Your task to perform on an android device: Open eBay Image 0: 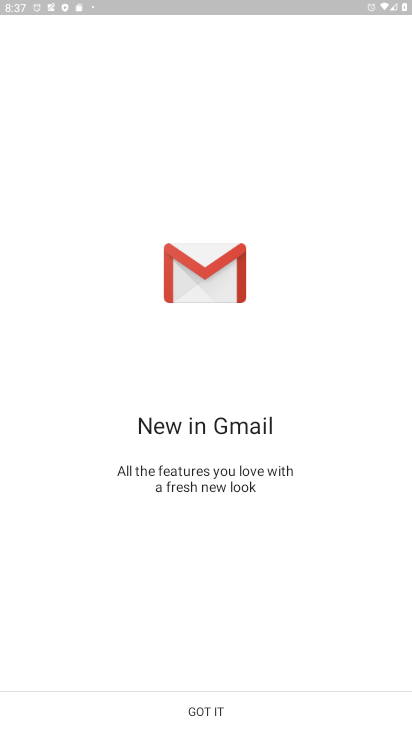
Step 0: press home button
Your task to perform on an android device: Open eBay Image 1: 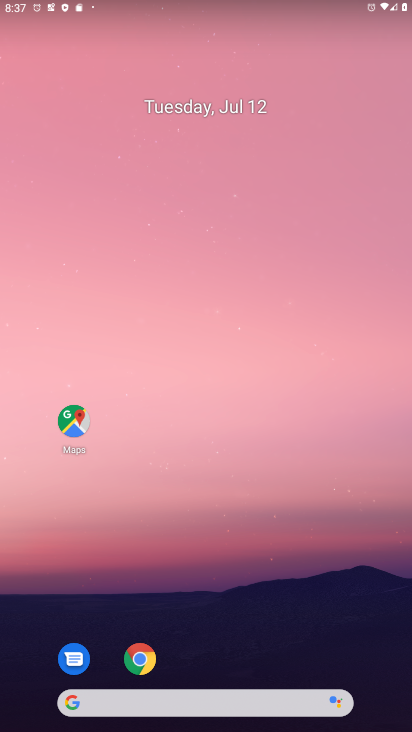
Step 1: click (140, 658)
Your task to perform on an android device: Open eBay Image 2: 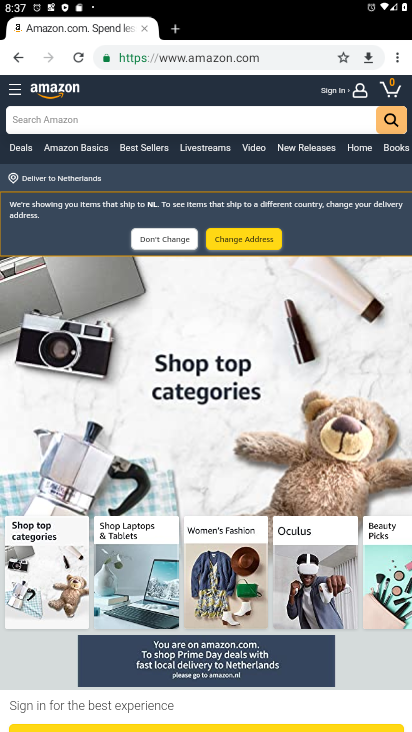
Step 2: click (283, 54)
Your task to perform on an android device: Open eBay Image 3: 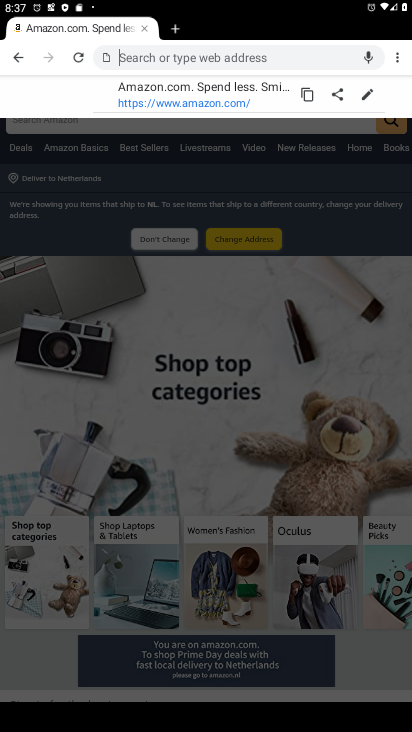
Step 3: type "eBay"
Your task to perform on an android device: Open eBay Image 4: 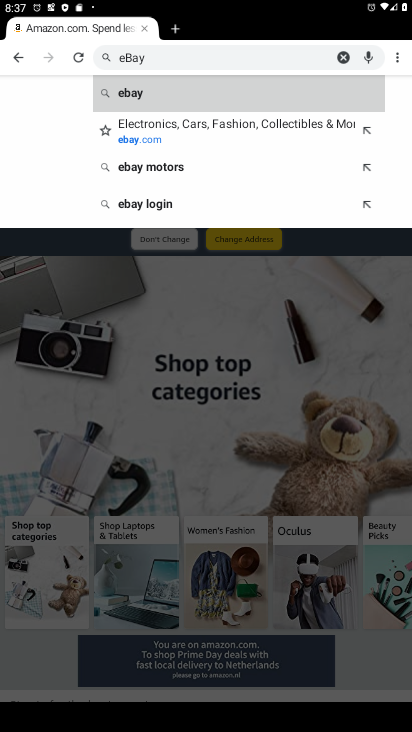
Step 4: click (148, 92)
Your task to perform on an android device: Open eBay Image 5: 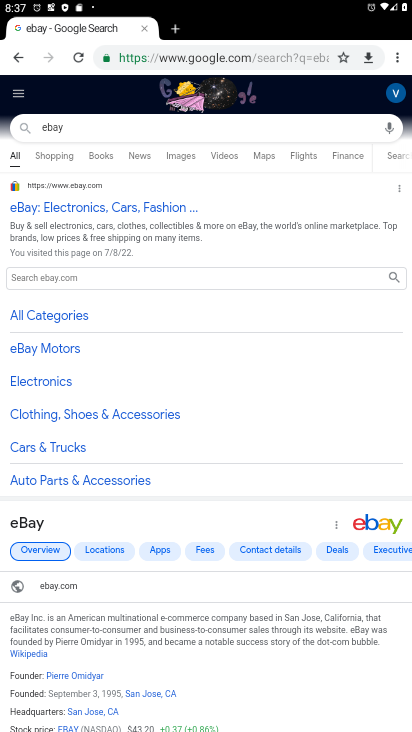
Step 5: click (85, 205)
Your task to perform on an android device: Open eBay Image 6: 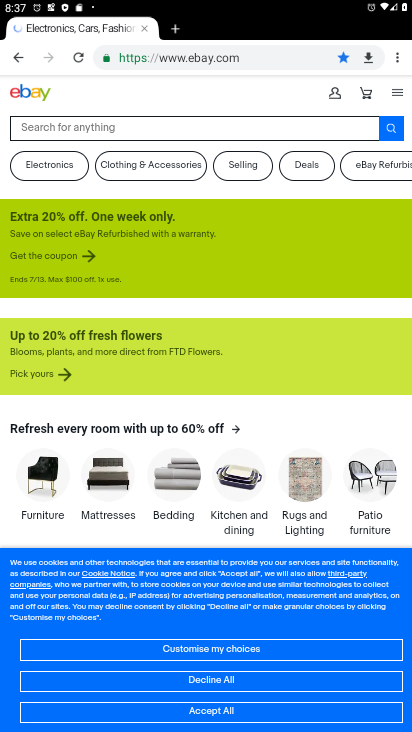
Step 6: task complete